Your task to perform on an android device: Check the weather Image 0: 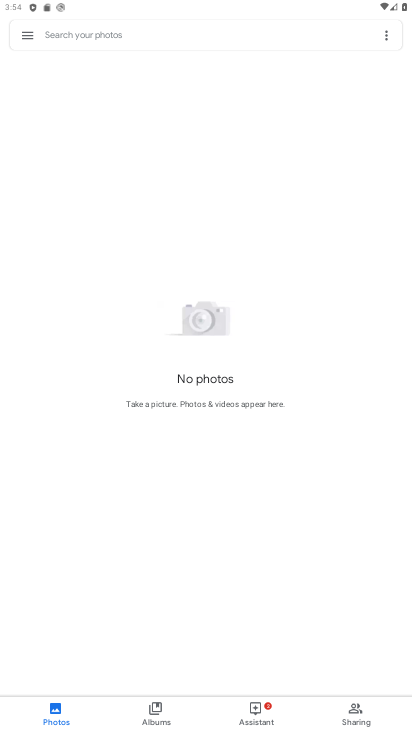
Step 0: press home button
Your task to perform on an android device: Check the weather Image 1: 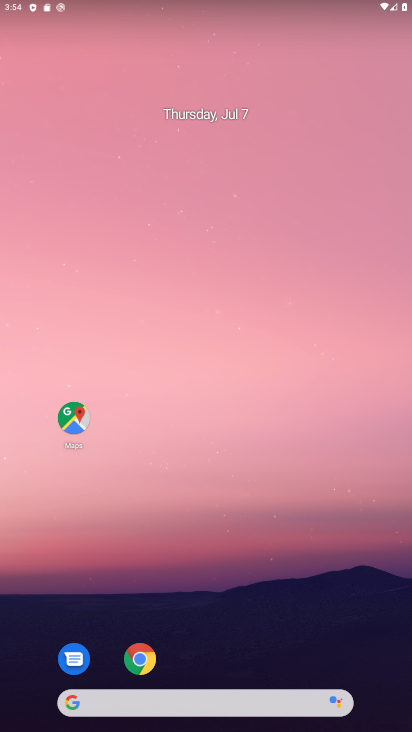
Step 1: click (167, 687)
Your task to perform on an android device: Check the weather Image 2: 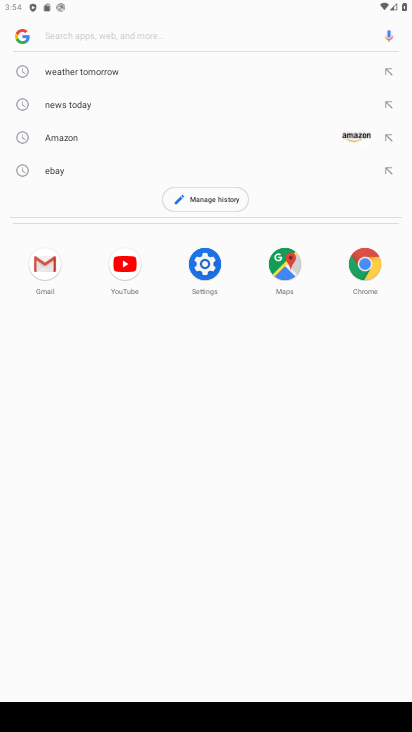
Step 2: type "weather"
Your task to perform on an android device: Check the weather Image 3: 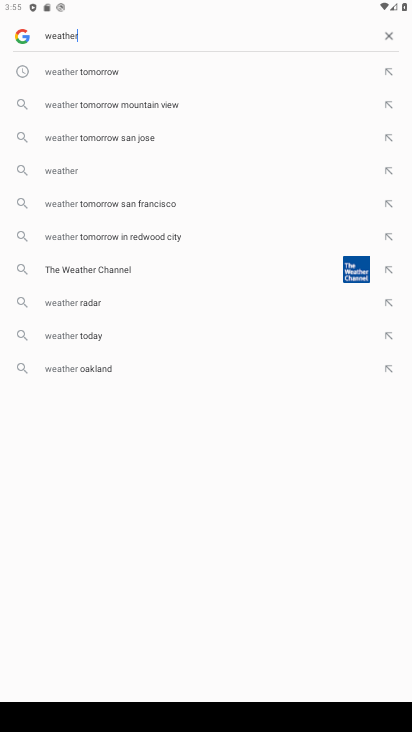
Step 3: click (84, 175)
Your task to perform on an android device: Check the weather Image 4: 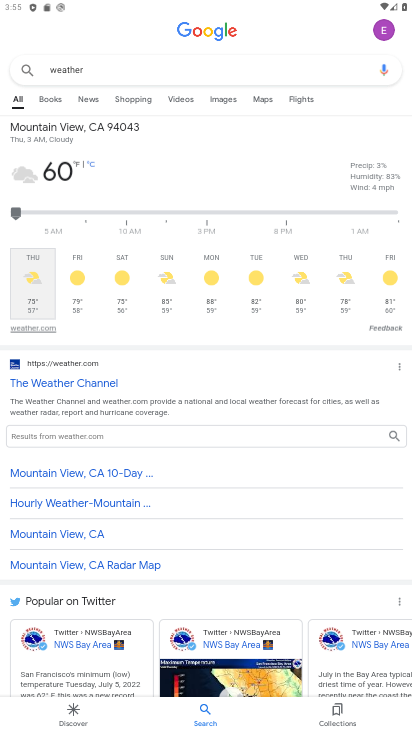
Step 4: task complete